Your task to perform on an android device: visit the assistant section in the google photos Image 0: 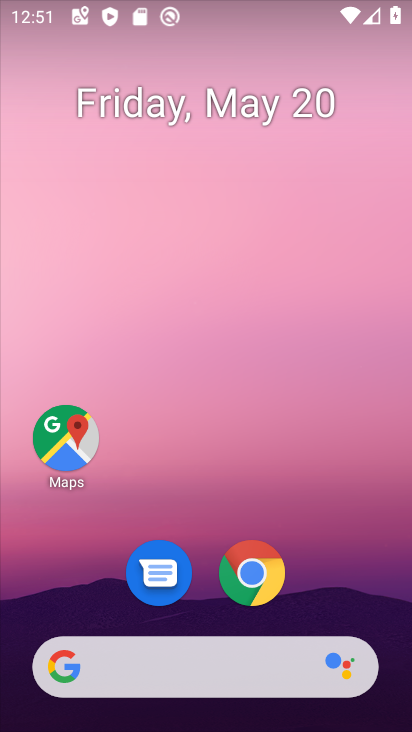
Step 0: drag from (197, 706) to (184, 148)
Your task to perform on an android device: visit the assistant section in the google photos Image 1: 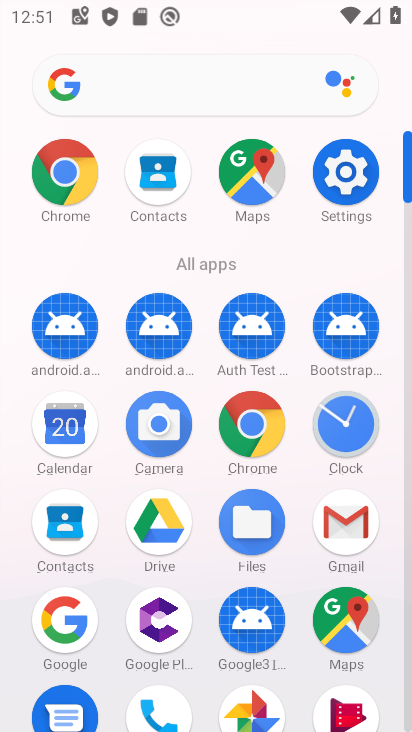
Step 1: click (253, 707)
Your task to perform on an android device: visit the assistant section in the google photos Image 2: 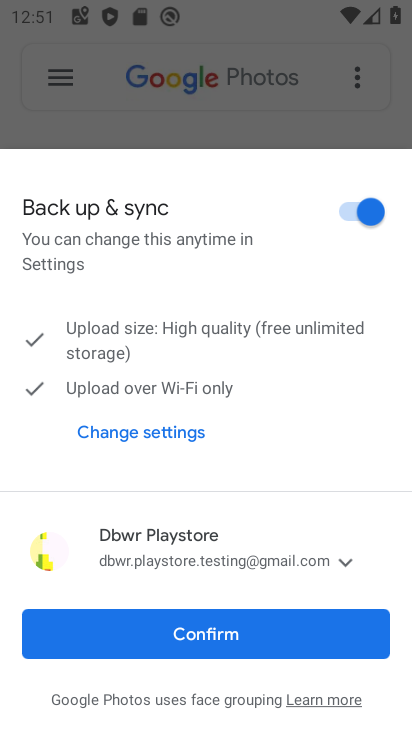
Step 2: click (187, 629)
Your task to perform on an android device: visit the assistant section in the google photos Image 3: 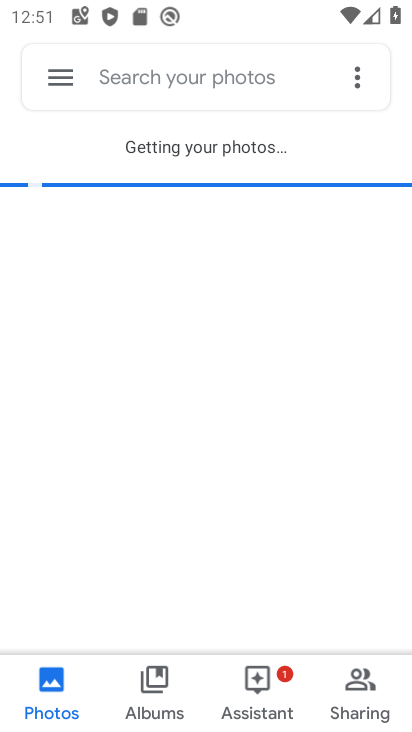
Step 3: click (260, 694)
Your task to perform on an android device: visit the assistant section in the google photos Image 4: 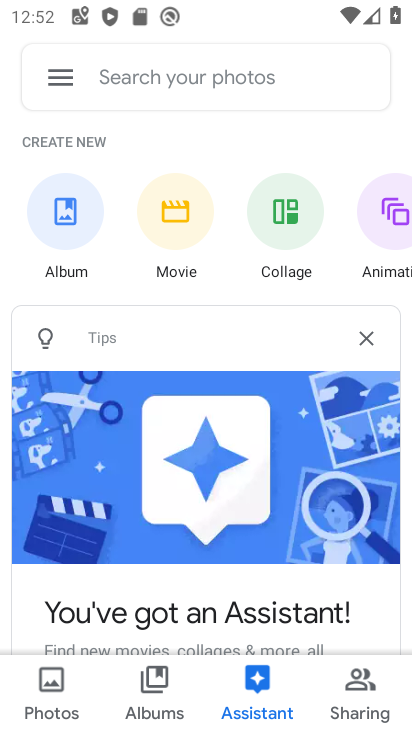
Step 4: task complete